Your task to perform on an android device: open app "Google Chat" (install if not already installed) Image 0: 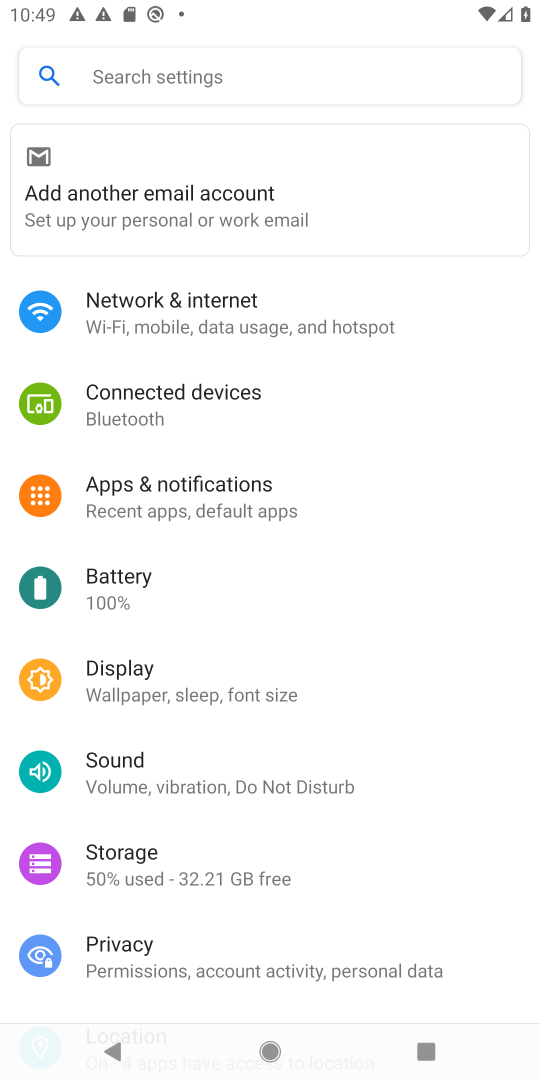
Step 0: press home button
Your task to perform on an android device: open app "Google Chat" (install if not already installed) Image 1: 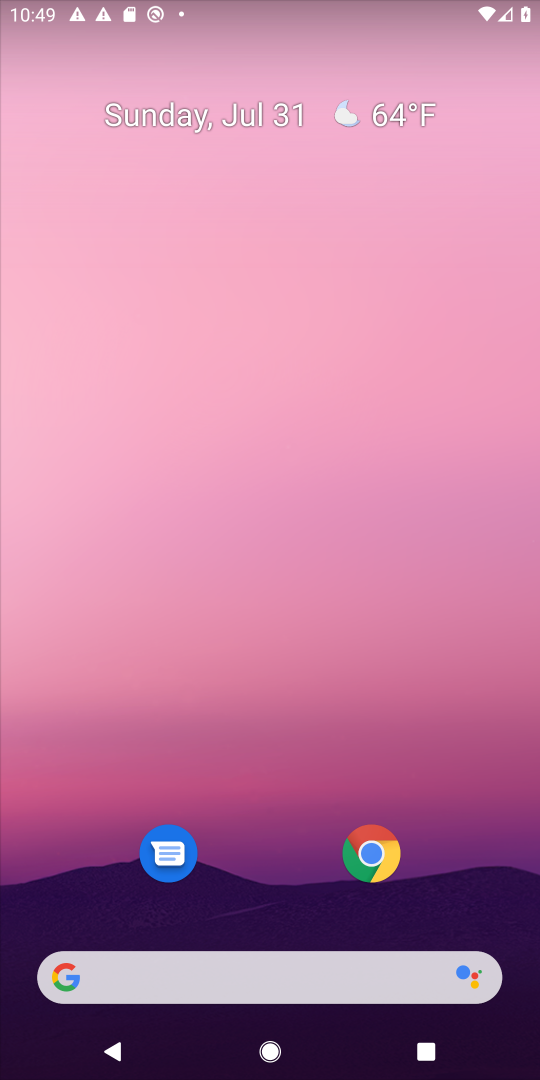
Step 1: drag from (306, 1053) to (308, 137)
Your task to perform on an android device: open app "Google Chat" (install if not already installed) Image 2: 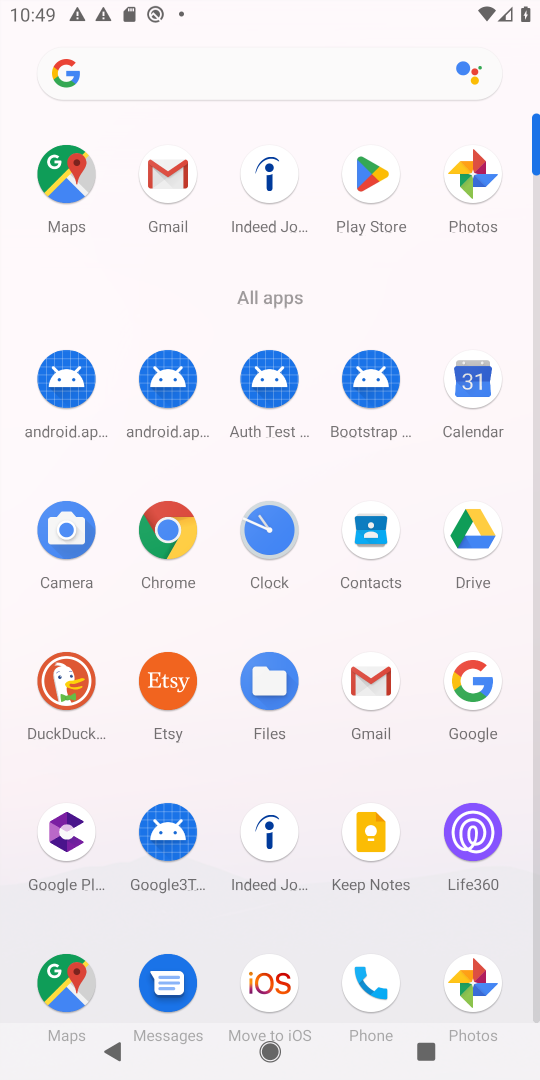
Step 2: click (374, 166)
Your task to perform on an android device: open app "Google Chat" (install if not already installed) Image 3: 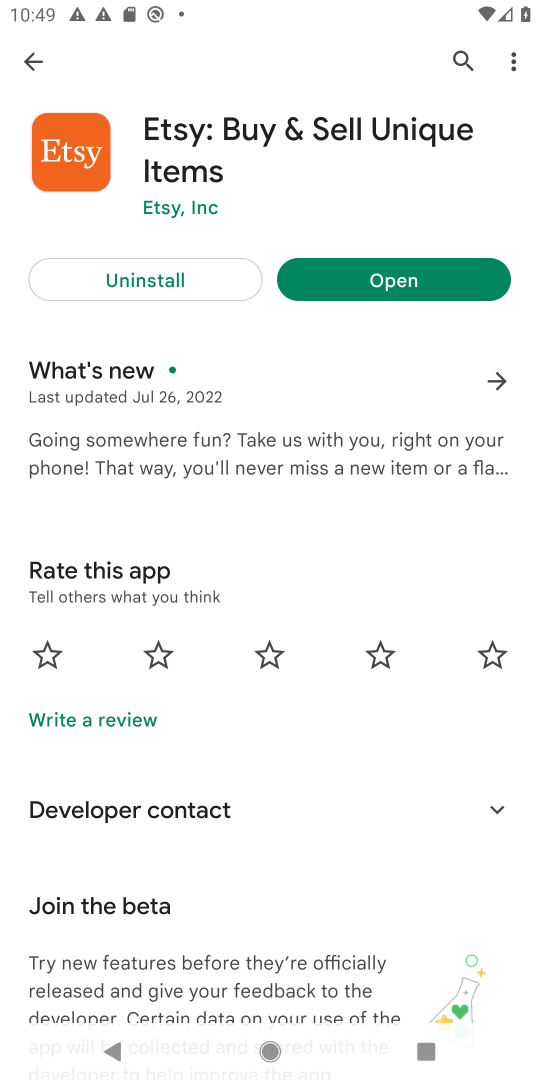
Step 3: click (467, 57)
Your task to perform on an android device: open app "Google Chat" (install if not already installed) Image 4: 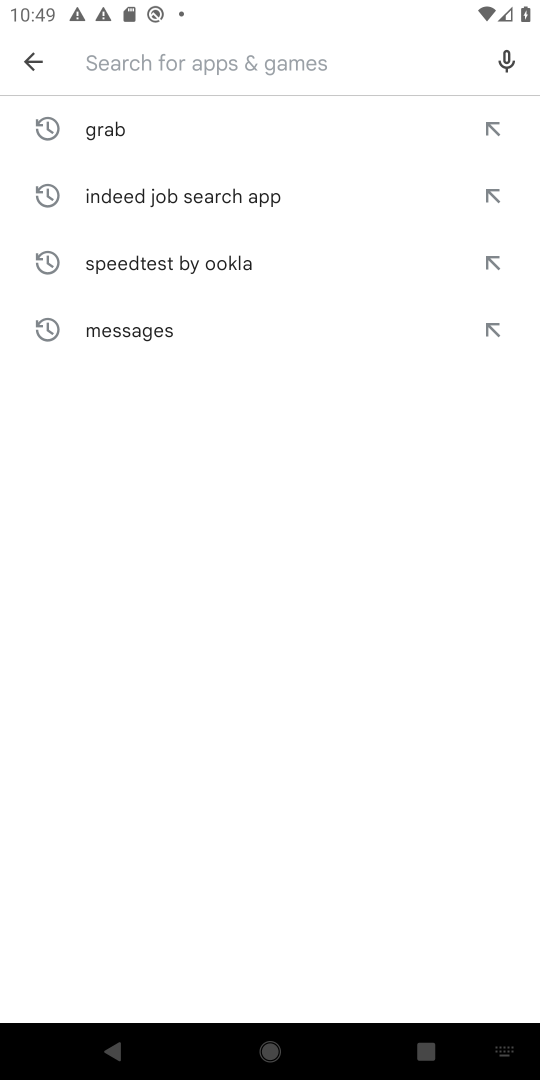
Step 4: type "Google Chat"
Your task to perform on an android device: open app "Google Chat" (install if not already installed) Image 5: 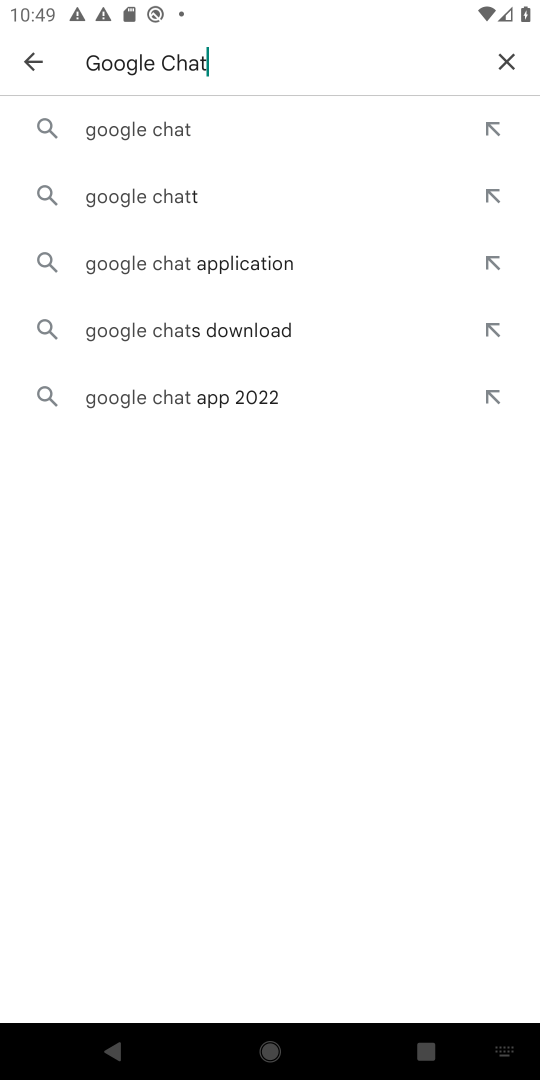
Step 5: click (165, 119)
Your task to perform on an android device: open app "Google Chat" (install if not already installed) Image 6: 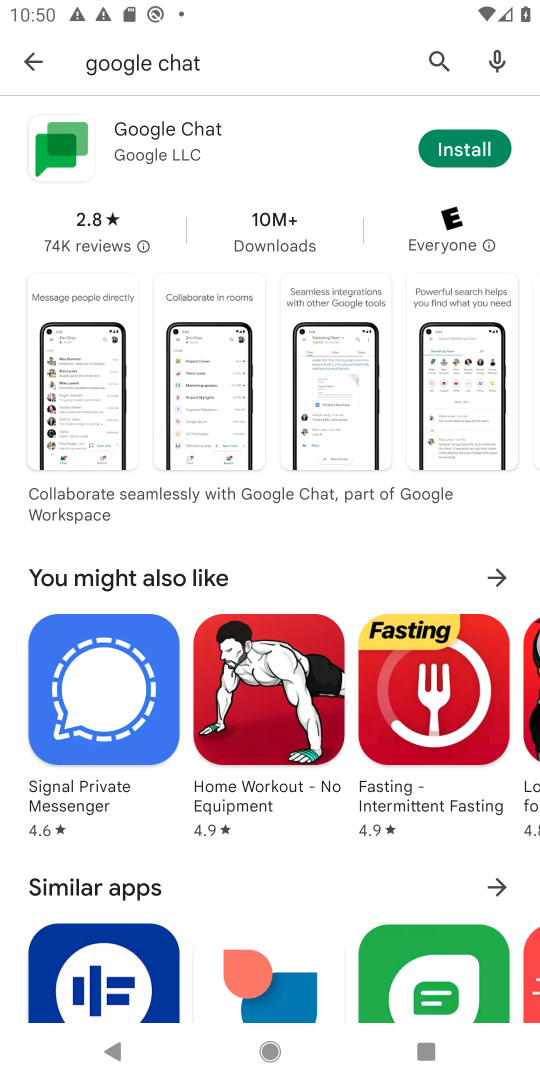
Step 6: click (479, 157)
Your task to perform on an android device: open app "Google Chat" (install if not already installed) Image 7: 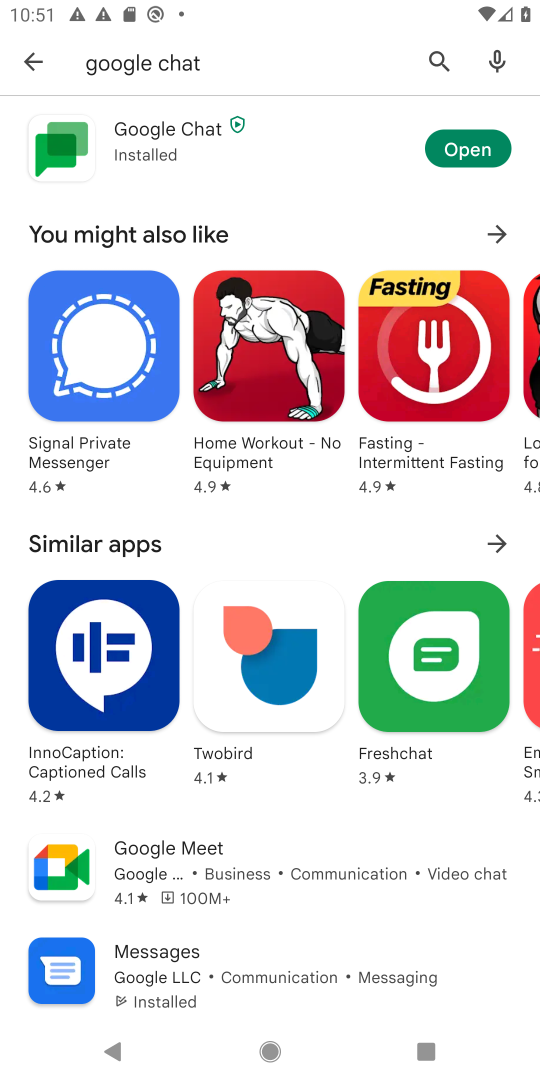
Step 7: task complete